Your task to perform on an android device: star an email in the gmail app Image 0: 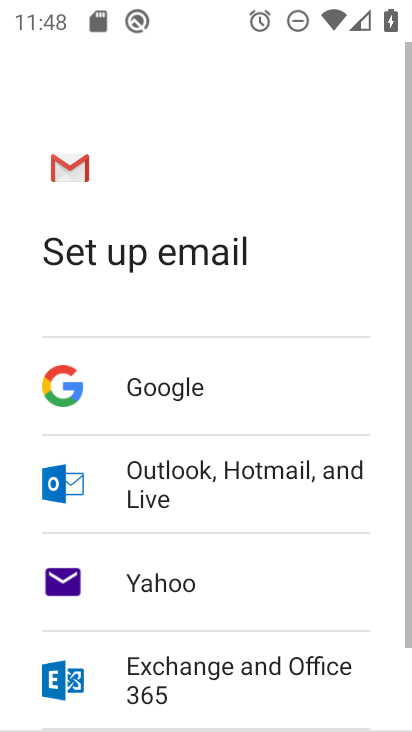
Step 0: press home button
Your task to perform on an android device: star an email in the gmail app Image 1: 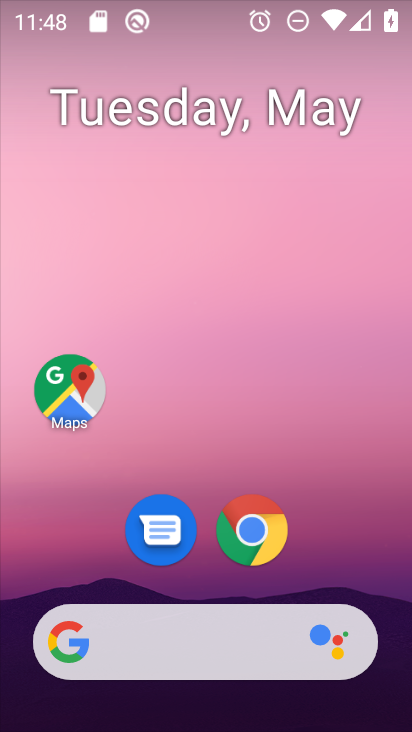
Step 1: drag from (302, 359) to (300, 106)
Your task to perform on an android device: star an email in the gmail app Image 2: 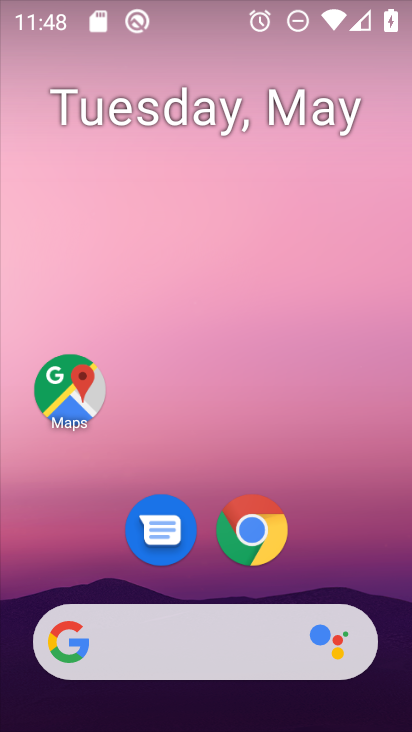
Step 2: drag from (318, 493) to (308, 93)
Your task to perform on an android device: star an email in the gmail app Image 3: 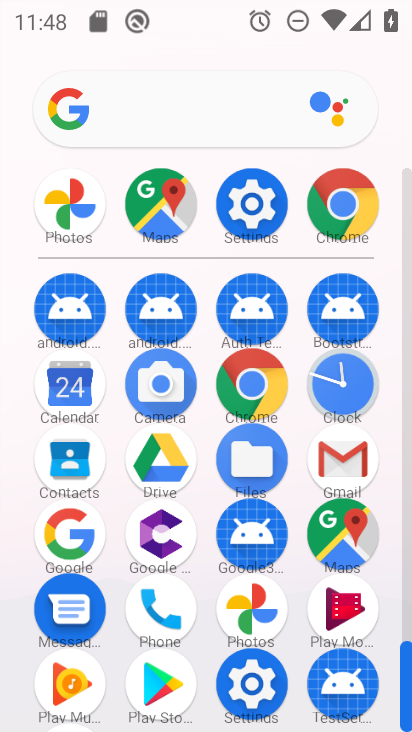
Step 3: click (328, 474)
Your task to perform on an android device: star an email in the gmail app Image 4: 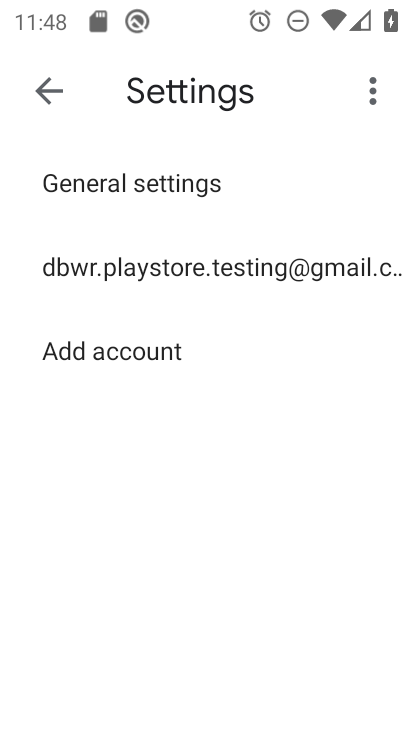
Step 4: click (172, 292)
Your task to perform on an android device: star an email in the gmail app Image 5: 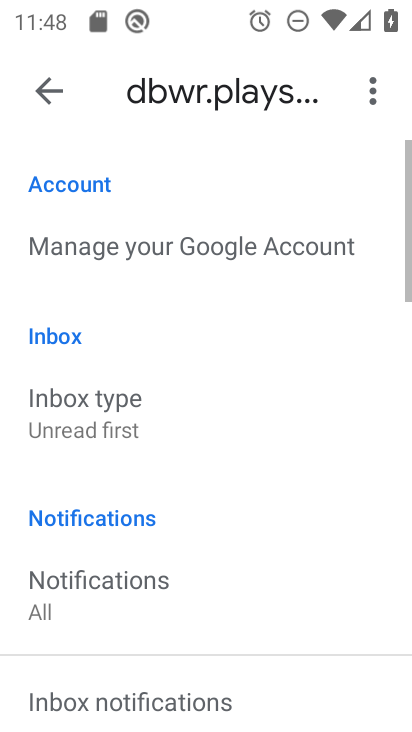
Step 5: click (32, 87)
Your task to perform on an android device: star an email in the gmail app Image 6: 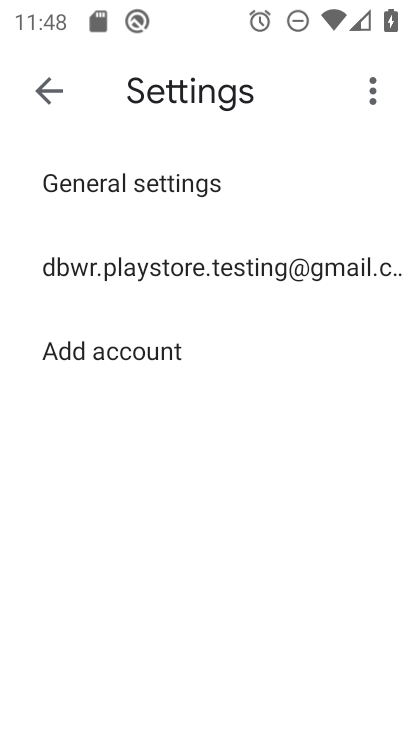
Step 6: click (32, 87)
Your task to perform on an android device: star an email in the gmail app Image 7: 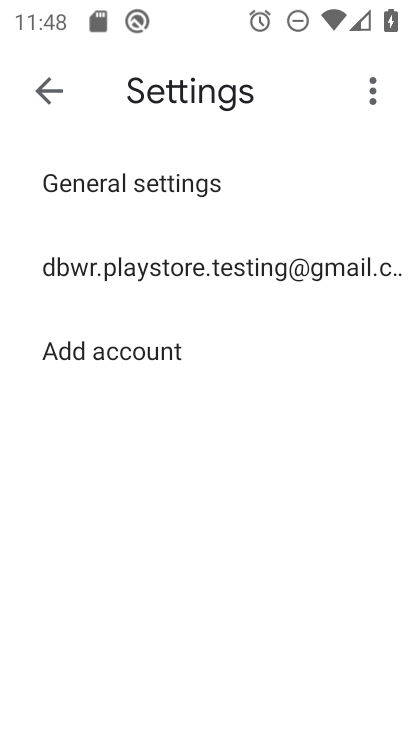
Step 7: click (33, 87)
Your task to perform on an android device: star an email in the gmail app Image 8: 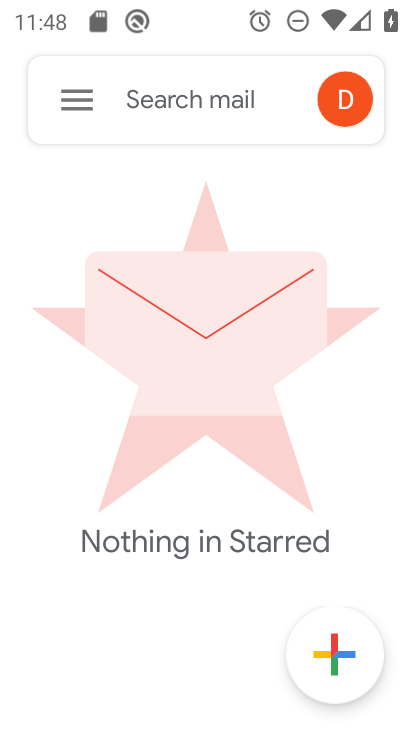
Step 8: click (61, 89)
Your task to perform on an android device: star an email in the gmail app Image 9: 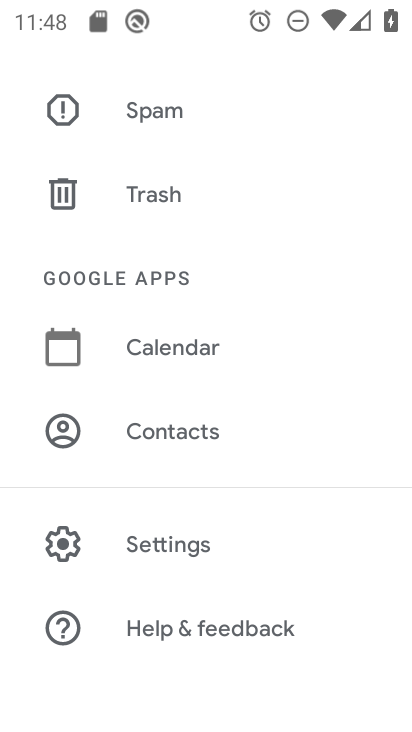
Step 9: drag from (154, 134) to (216, 607)
Your task to perform on an android device: star an email in the gmail app Image 10: 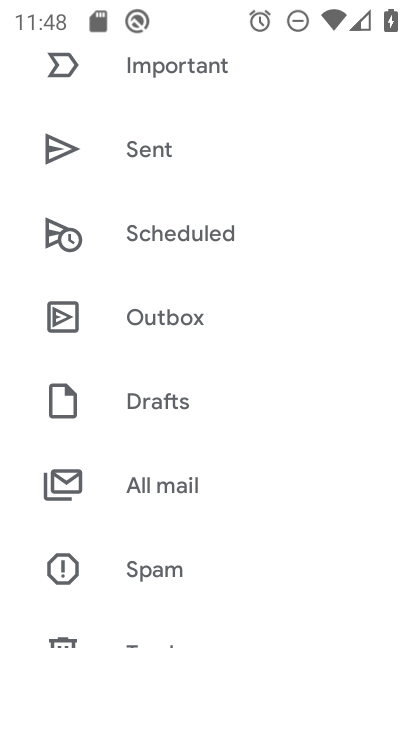
Step 10: drag from (183, 234) to (195, 554)
Your task to perform on an android device: star an email in the gmail app Image 11: 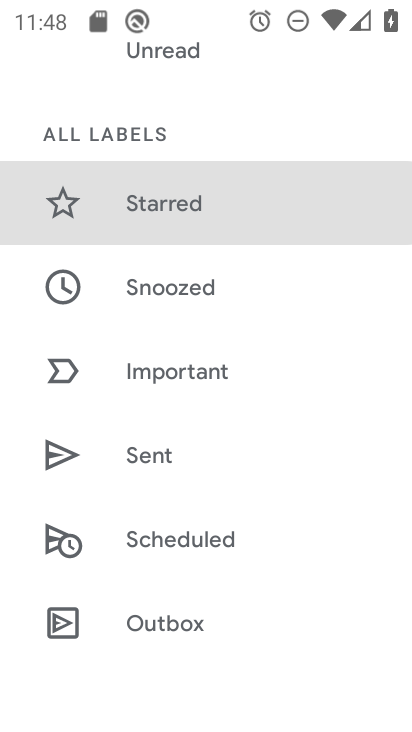
Step 11: drag from (147, 523) to (214, 106)
Your task to perform on an android device: star an email in the gmail app Image 12: 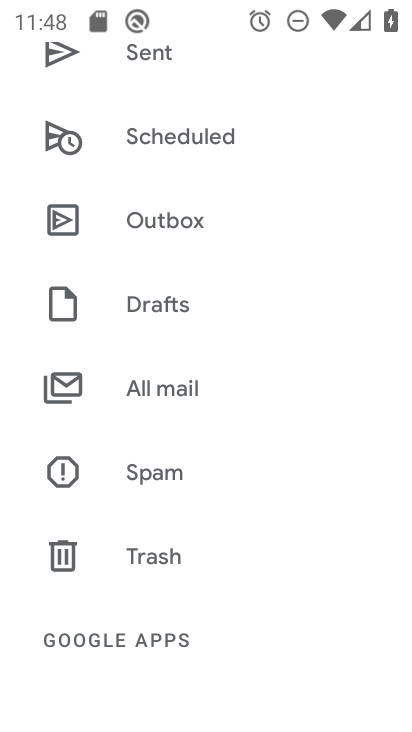
Step 12: click (164, 375)
Your task to perform on an android device: star an email in the gmail app Image 13: 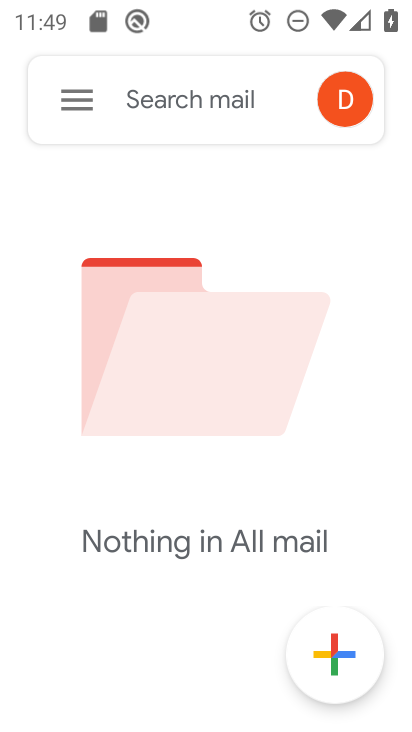
Step 13: task complete